Your task to perform on an android device: turn pop-ups off in chrome Image 0: 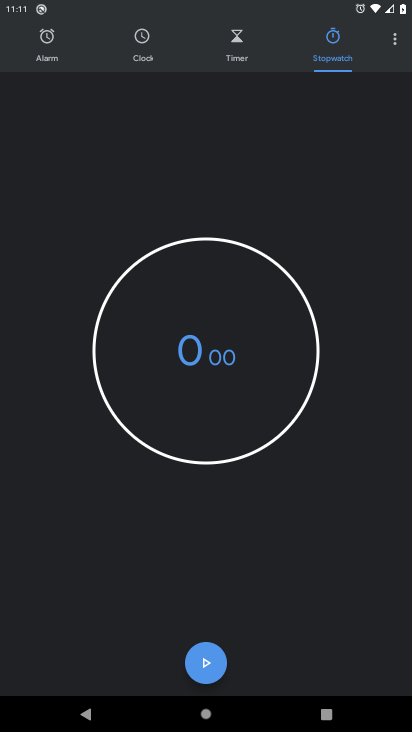
Step 0: press home button
Your task to perform on an android device: turn pop-ups off in chrome Image 1: 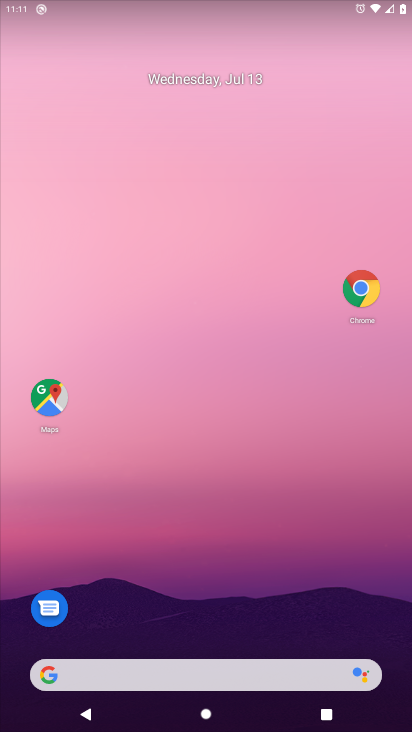
Step 1: click (366, 286)
Your task to perform on an android device: turn pop-ups off in chrome Image 2: 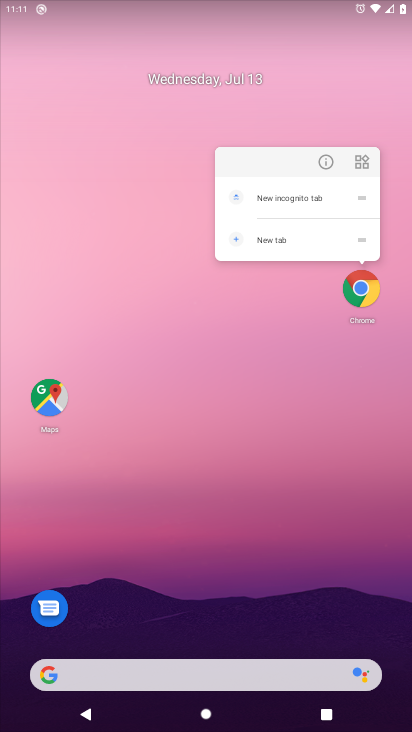
Step 2: click (344, 292)
Your task to perform on an android device: turn pop-ups off in chrome Image 3: 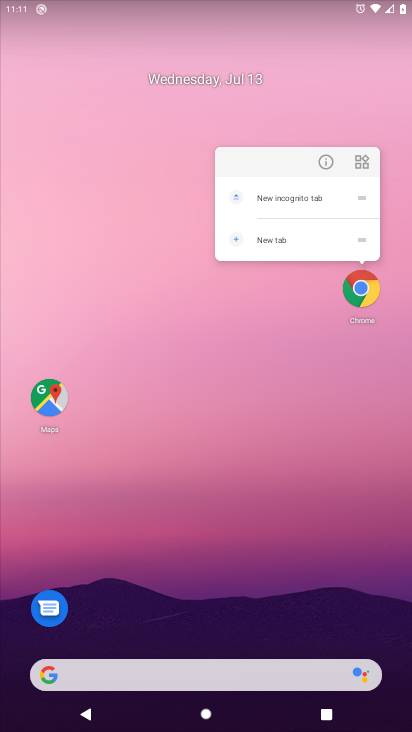
Step 3: task complete